Your task to perform on an android device: allow cookies in the chrome app Image 0: 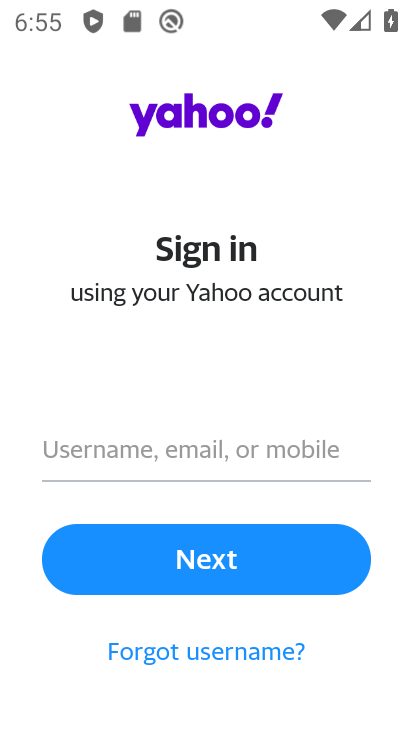
Step 0: press home button
Your task to perform on an android device: allow cookies in the chrome app Image 1: 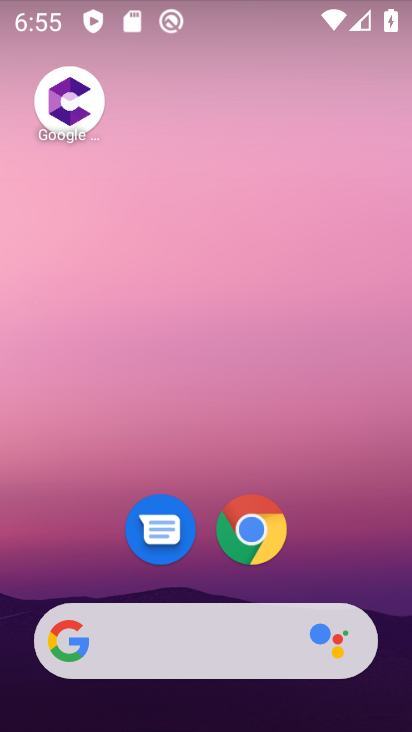
Step 1: click (246, 533)
Your task to perform on an android device: allow cookies in the chrome app Image 2: 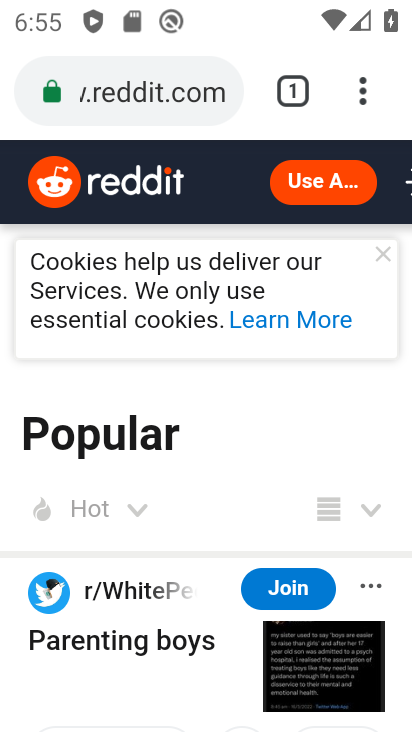
Step 2: click (359, 91)
Your task to perform on an android device: allow cookies in the chrome app Image 3: 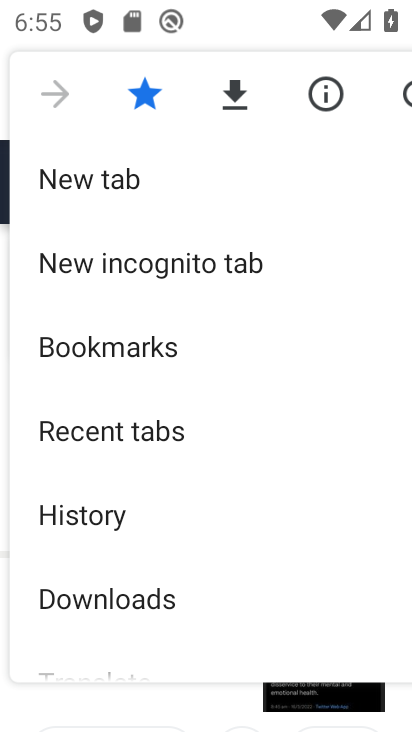
Step 3: drag from (234, 533) to (231, 195)
Your task to perform on an android device: allow cookies in the chrome app Image 4: 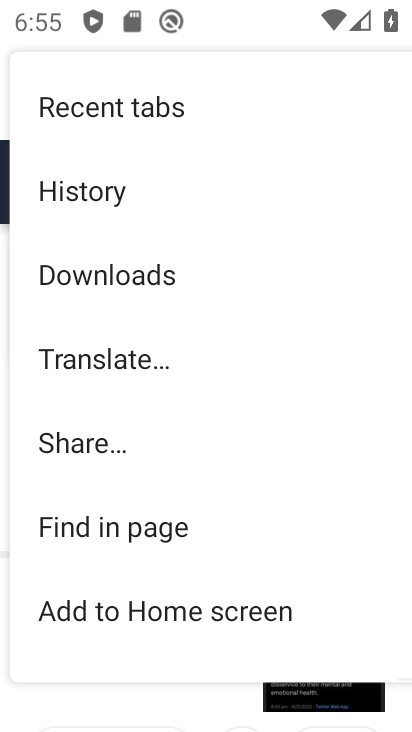
Step 4: drag from (290, 489) to (276, 7)
Your task to perform on an android device: allow cookies in the chrome app Image 5: 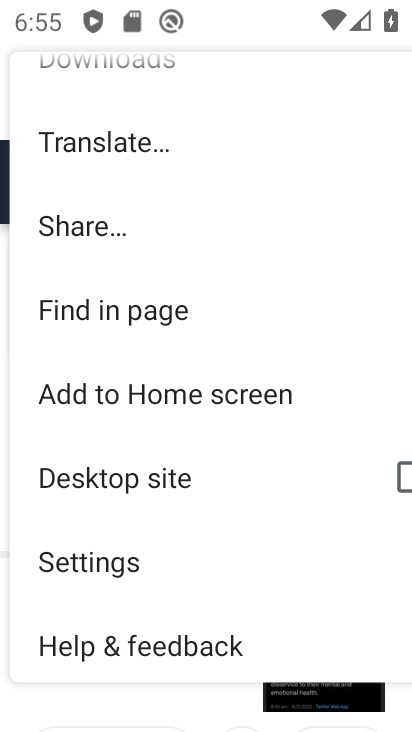
Step 5: click (93, 555)
Your task to perform on an android device: allow cookies in the chrome app Image 6: 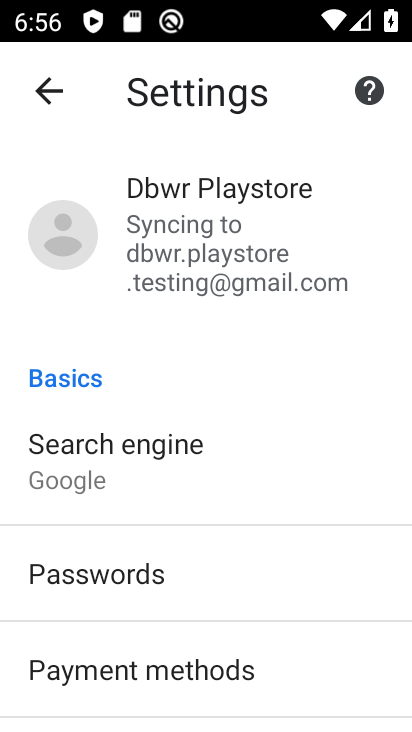
Step 6: drag from (283, 665) to (278, 387)
Your task to perform on an android device: allow cookies in the chrome app Image 7: 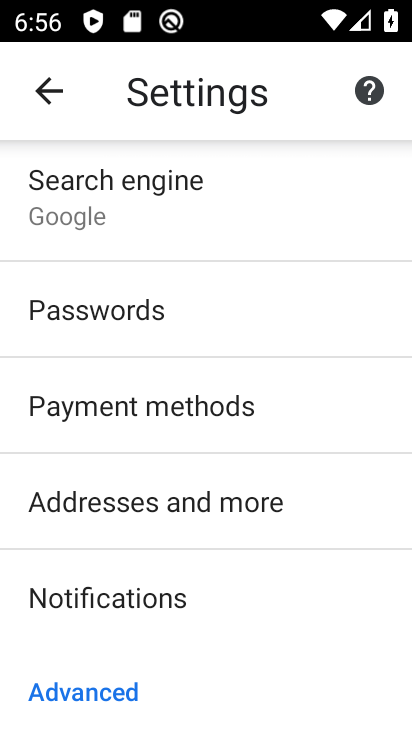
Step 7: drag from (287, 559) to (255, 291)
Your task to perform on an android device: allow cookies in the chrome app Image 8: 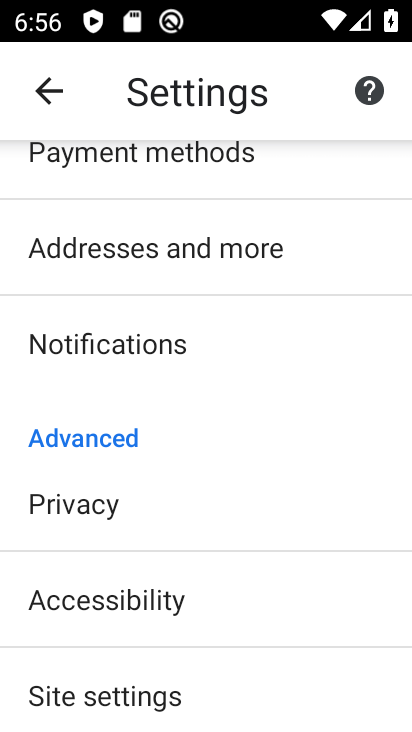
Step 8: click (135, 704)
Your task to perform on an android device: allow cookies in the chrome app Image 9: 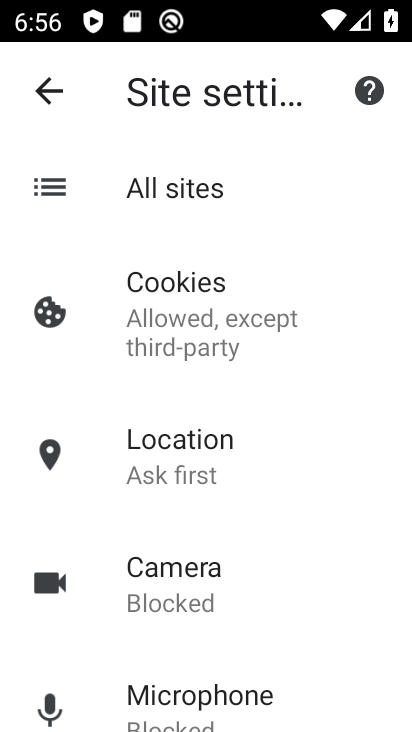
Step 9: click (168, 296)
Your task to perform on an android device: allow cookies in the chrome app Image 10: 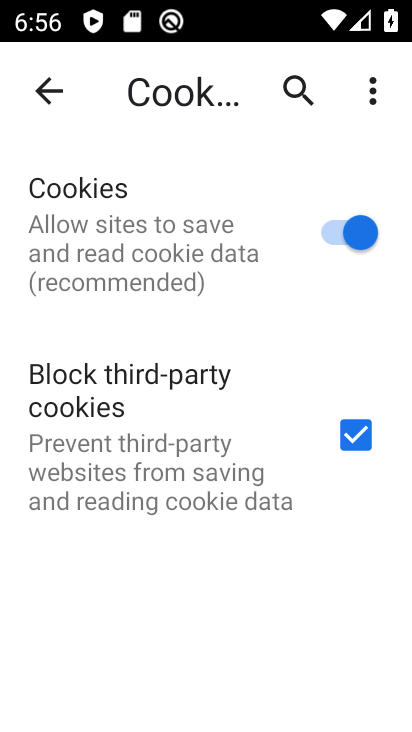
Step 10: task complete